Your task to perform on an android device: open app "Google Docs" (install if not already installed) Image 0: 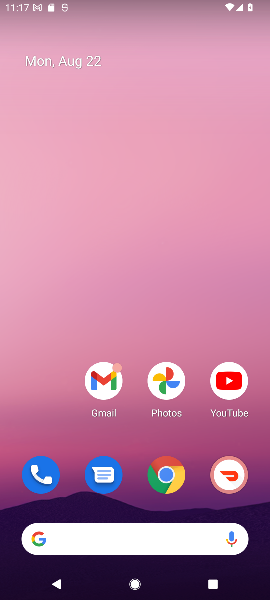
Step 0: drag from (143, 507) to (141, 107)
Your task to perform on an android device: open app "Google Docs" (install if not already installed) Image 1: 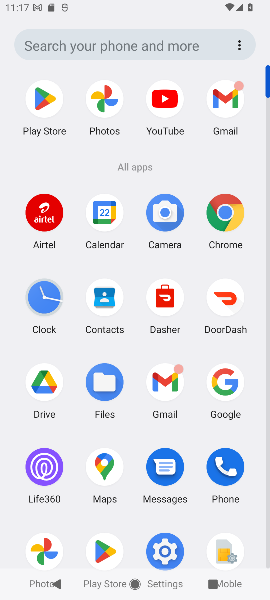
Step 1: click (52, 107)
Your task to perform on an android device: open app "Google Docs" (install if not already installed) Image 2: 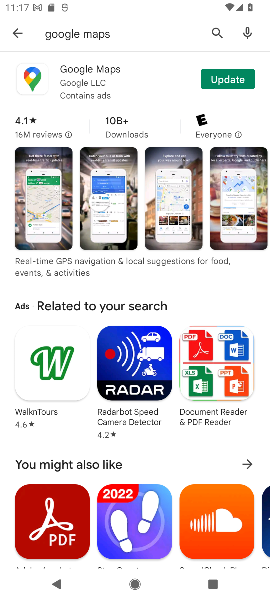
Step 2: click (12, 29)
Your task to perform on an android device: open app "Google Docs" (install if not already installed) Image 3: 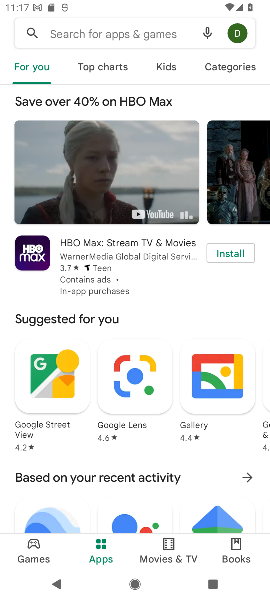
Step 3: click (74, 37)
Your task to perform on an android device: open app "Google Docs" (install if not already installed) Image 4: 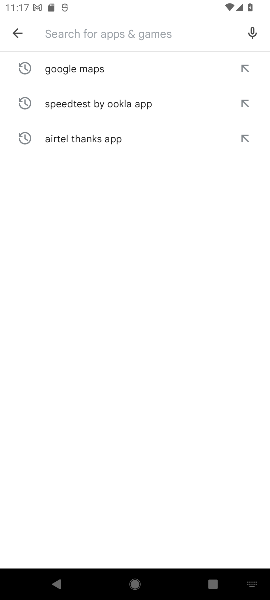
Step 4: type "Google Docs"
Your task to perform on an android device: open app "Google Docs" (install if not already installed) Image 5: 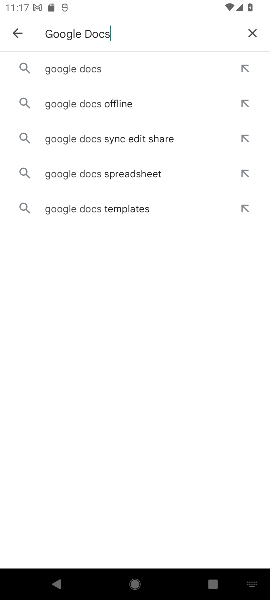
Step 5: click (64, 69)
Your task to perform on an android device: open app "Google Docs" (install if not already installed) Image 6: 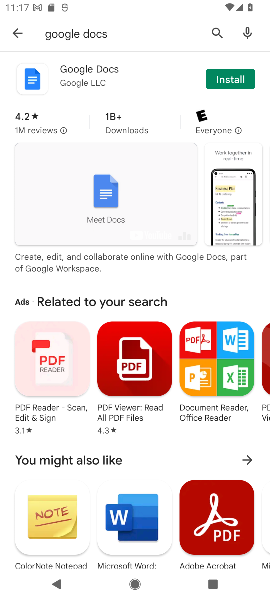
Step 6: click (234, 75)
Your task to perform on an android device: open app "Google Docs" (install if not already installed) Image 7: 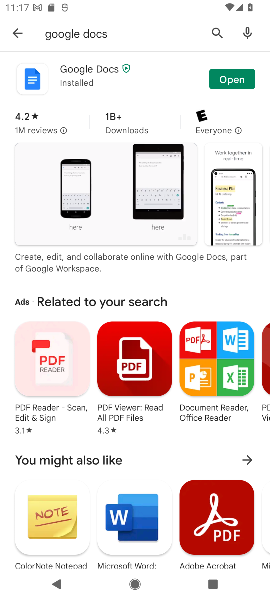
Step 7: click (227, 77)
Your task to perform on an android device: open app "Google Docs" (install if not already installed) Image 8: 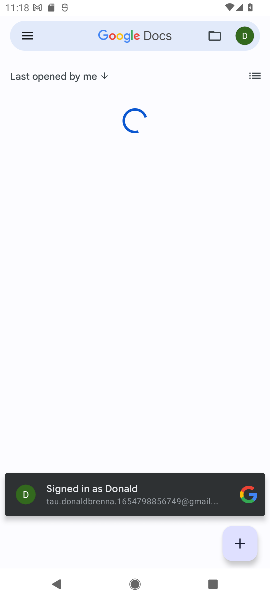
Step 8: task complete